Your task to perform on an android device: Open Google Chrome and click the shortcut for Amazon.com Image 0: 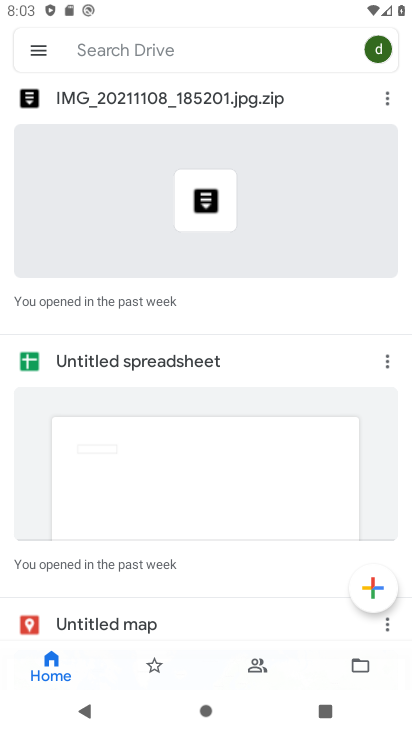
Step 0: press home button
Your task to perform on an android device: Open Google Chrome and click the shortcut for Amazon.com Image 1: 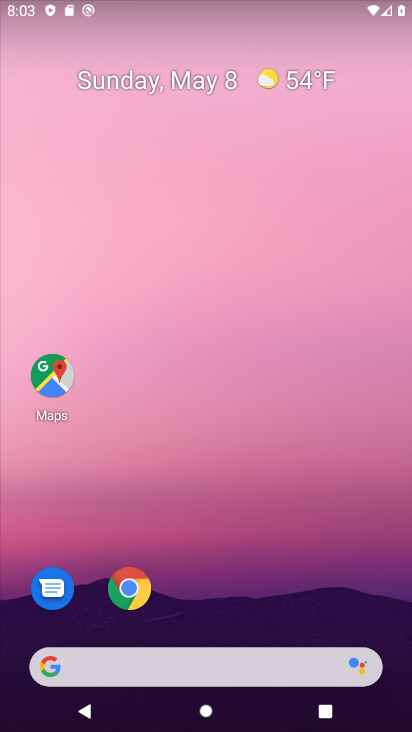
Step 1: click (122, 588)
Your task to perform on an android device: Open Google Chrome and click the shortcut for Amazon.com Image 2: 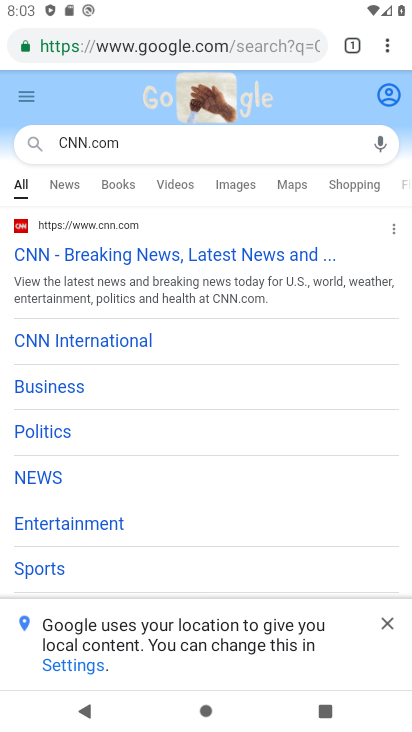
Step 2: press back button
Your task to perform on an android device: Open Google Chrome and click the shortcut for Amazon.com Image 3: 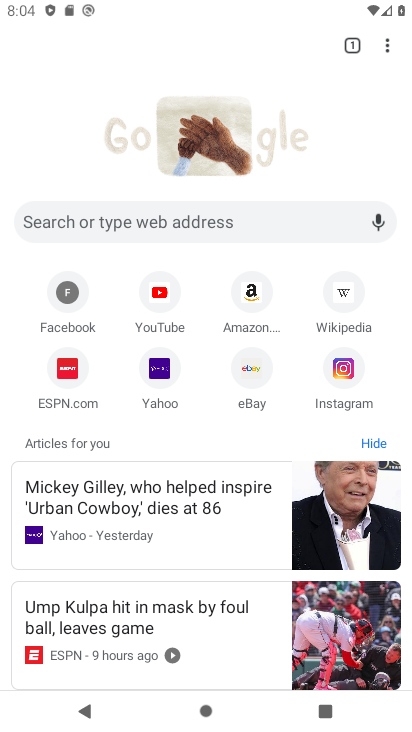
Step 3: click (266, 292)
Your task to perform on an android device: Open Google Chrome and click the shortcut for Amazon.com Image 4: 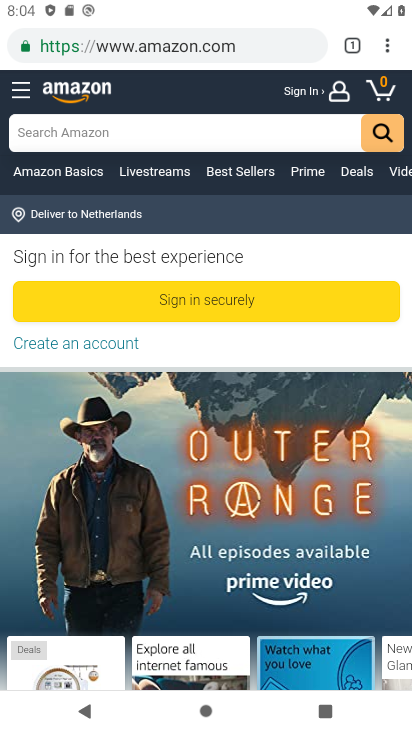
Step 4: task complete